Your task to perform on an android device: Go to ESPN.com Image 0: 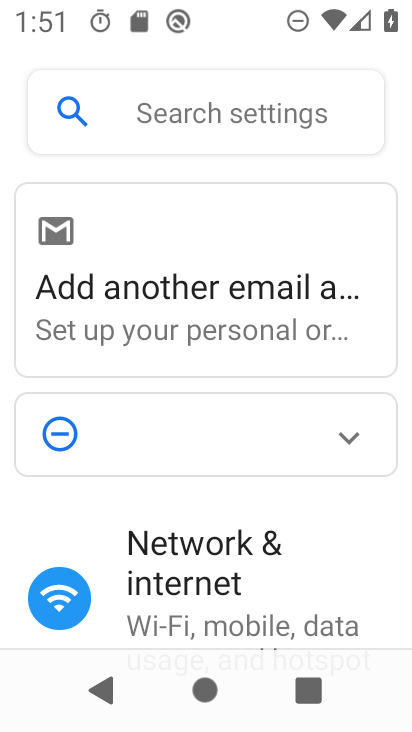
Step 0: press home button
Your task to perform on an android device: Go to ESPN.com Image 1: 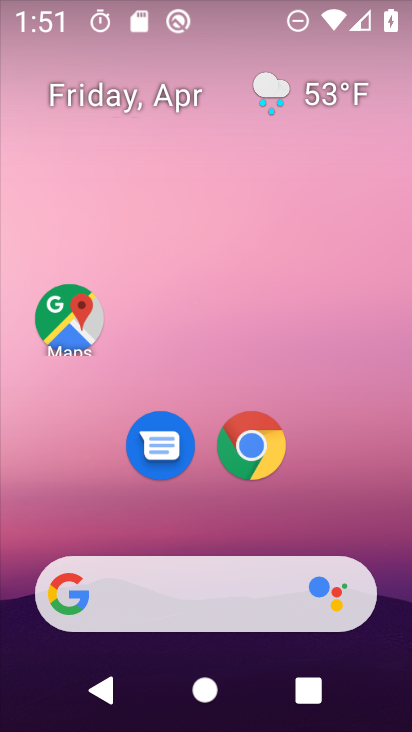
Step 1: drag from (373, 520) to (412, 252)
Your task to perform on an android device: Go to ESPN.com Image 2: 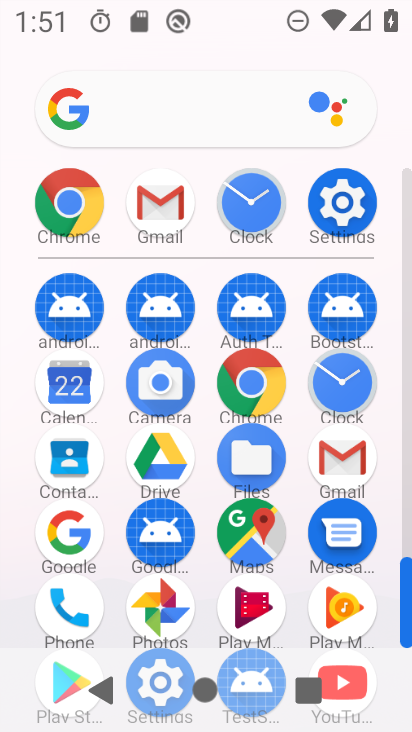
Step 2: click (260, 387)
Your task to perform on an android device: Go to ESPN.com Image 3: 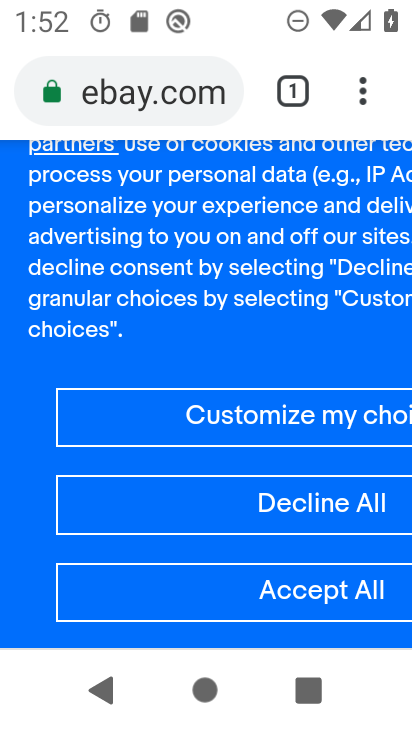
Step 3: press back button
Your task to perform on an android device: Go to ESPN.com Image 4: 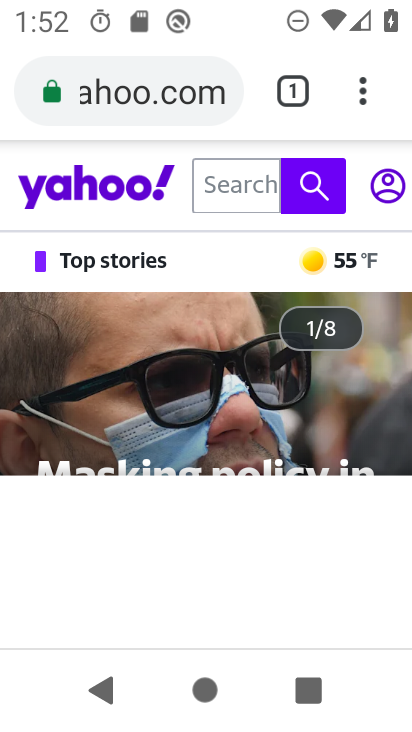
Step 4: press back button
Your task to perform on an android device: Go to ESPN.com Image 5: 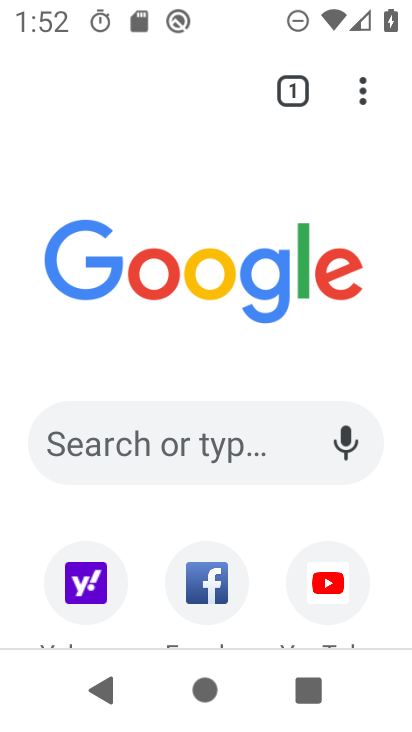
Step 5: drag from (391, 531) to (390, 218)
Your task to perform on an android device: Go to ESPN.com Image 6: 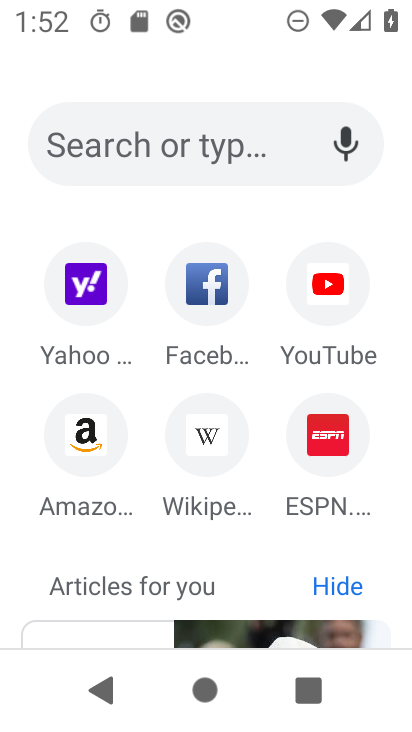
Step 6: click (337, 444)
Your task to perform on an android device: Go to ESPN.com Image 7: 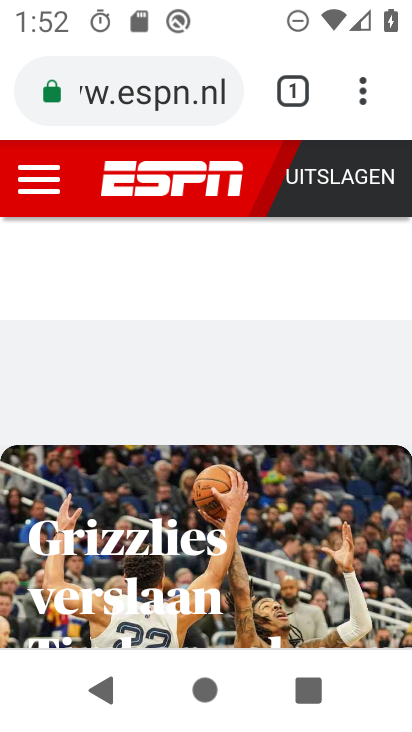
Step 7: task complete